Your task to perform on an android device: change notifications settings Image 0: 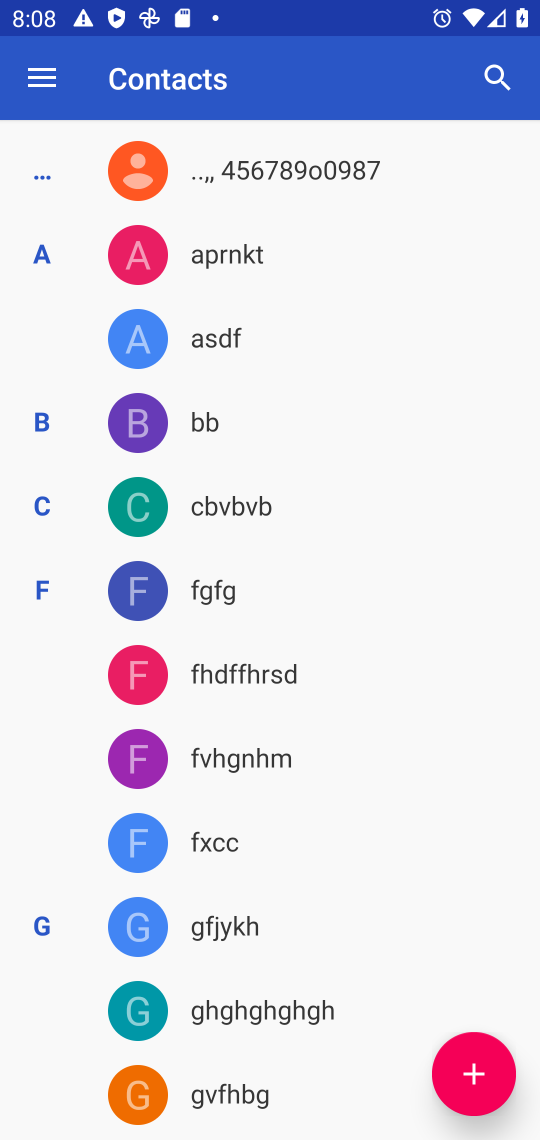
Step 0: press home button
Your task to perform on an android device: change notifications settings Image 1: 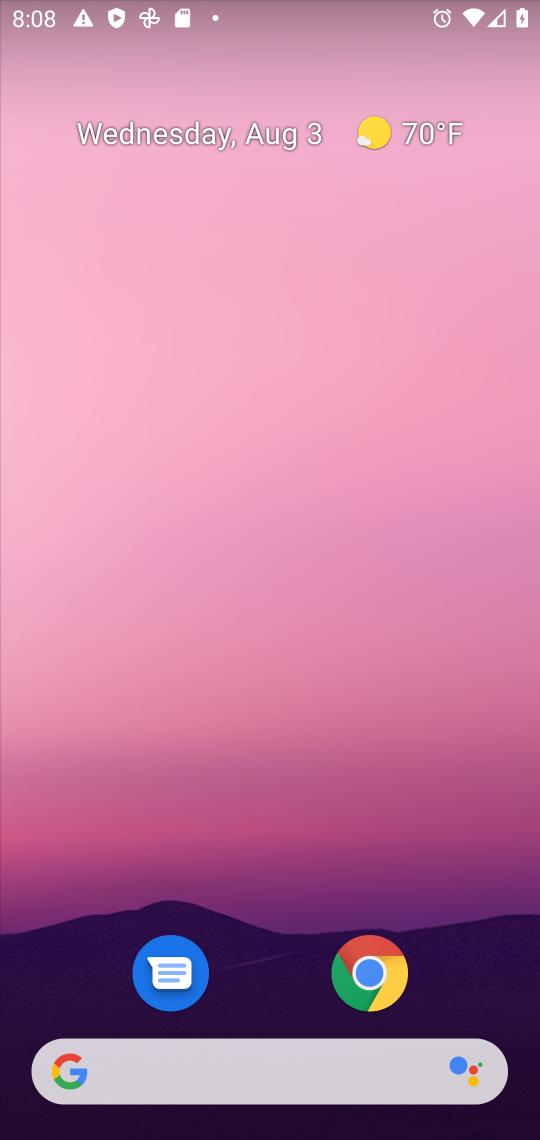
Step 1: drag from (272, 895) to (262, 329)
Your task to perform on an android device: change notifications settings Image 2: 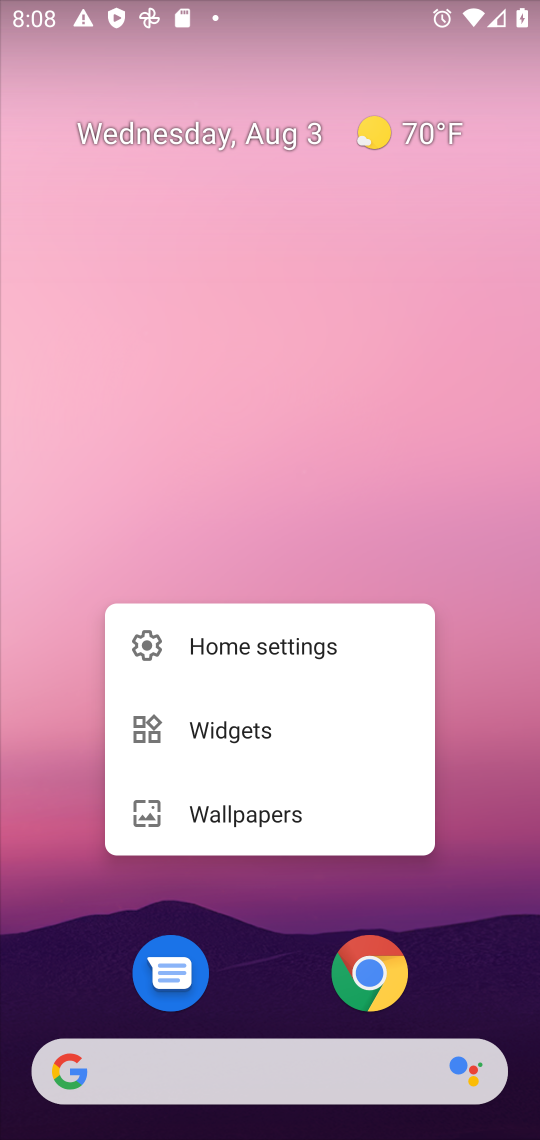
Step 2: click (252, 987)
Your task to perform on an android device: change notifications settings Image 3: 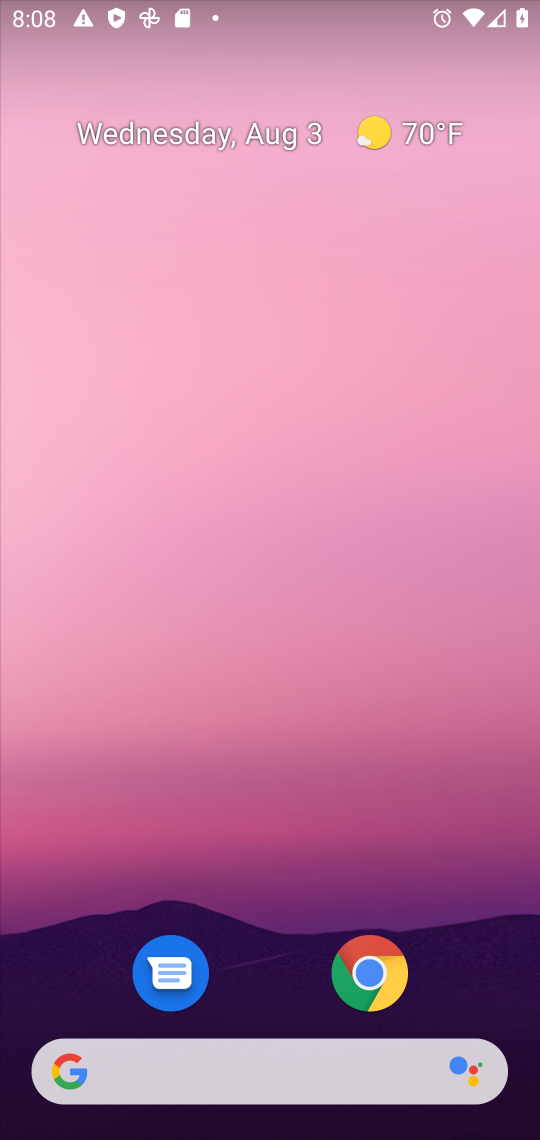
Step 3: drag from (249, 960) to (222, 289)
Your task to perform on an android device: change notifications settings Image 4: 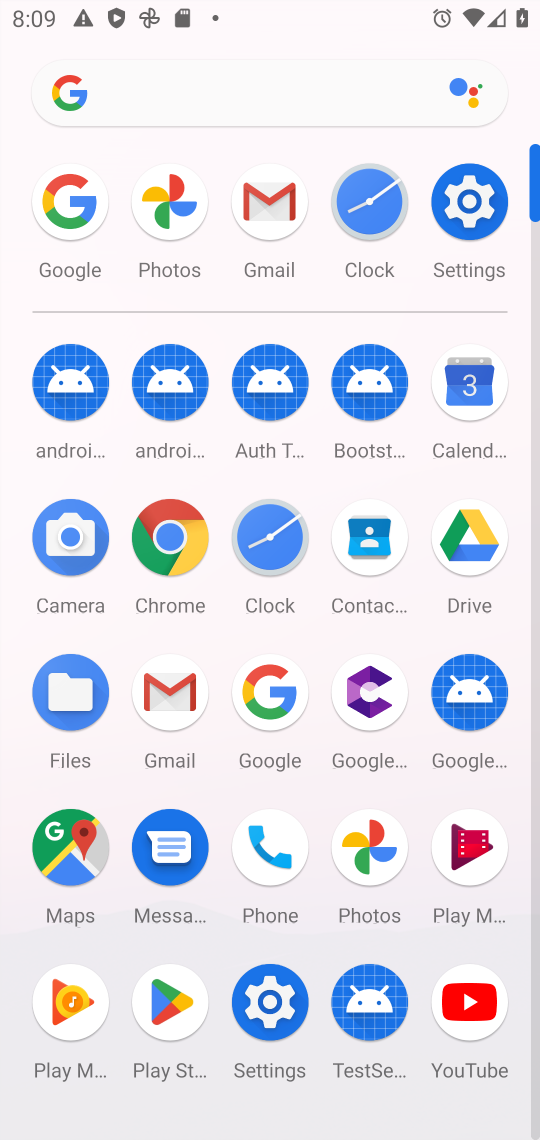
Step 4: click (466, 205)
Your task to perform on an android device: change notifications settings Image 5: 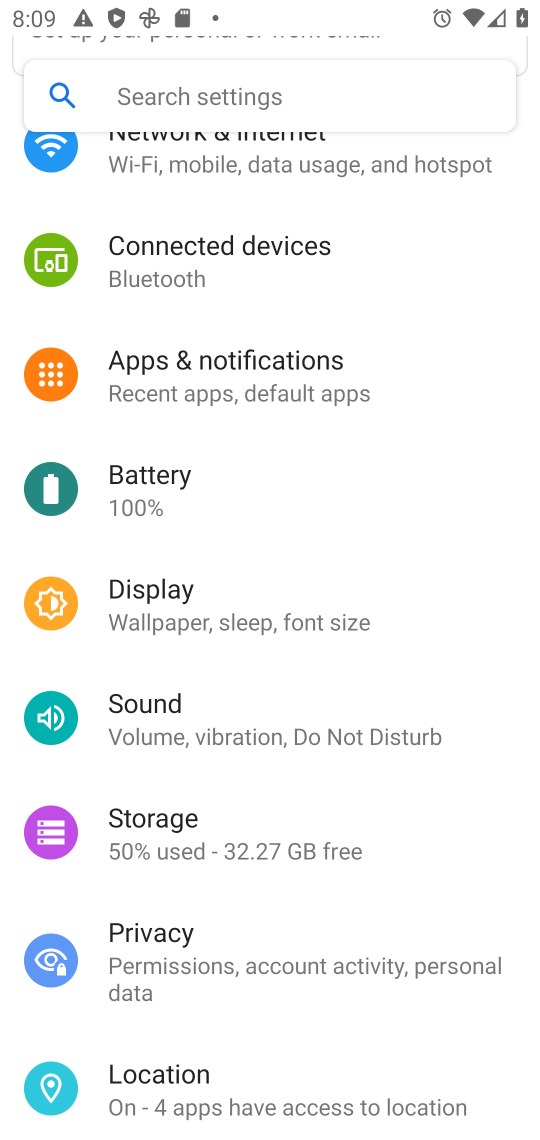
Step 5: click (193, 393)
Your task to perform on an android device: change notifications settings Image 6: 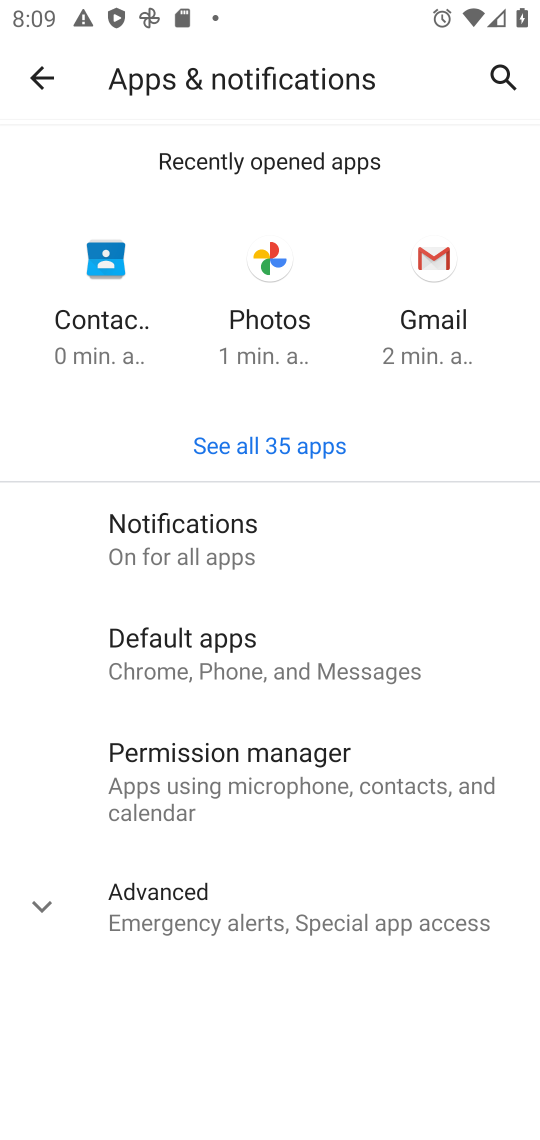
Step 6: click (163, 539)
Your task to perform on an android device: change notifications settings Image 7: 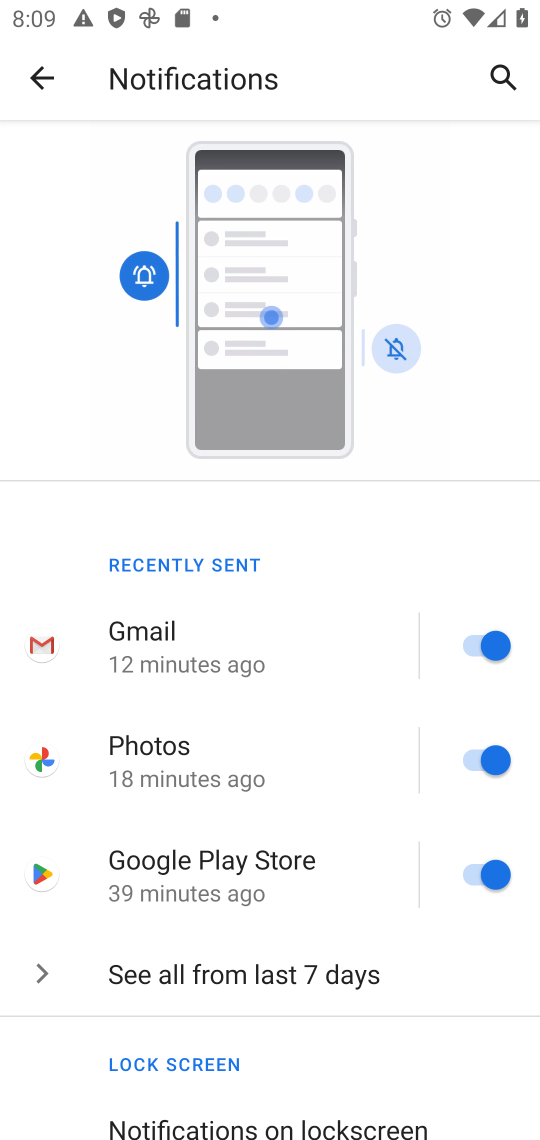
Step 7: drag from (243, 735) to (281, 437)
Your task to perform on an android device: change notifications settings Image 8: 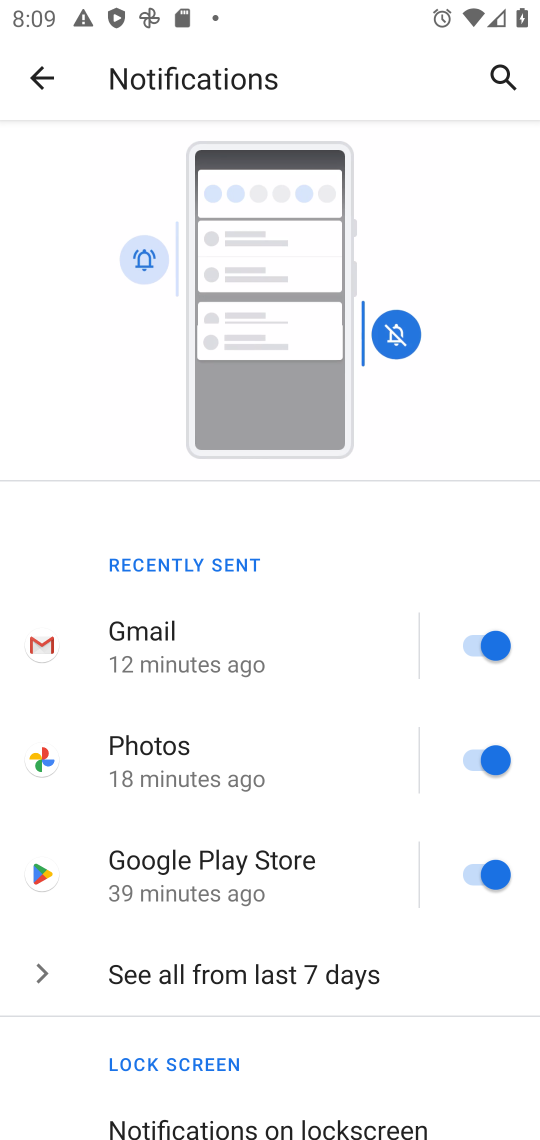
Step 8: drag from (230, 1033) to (239, 376)
Your task to perform on an android device: change notifications settings Image 9: 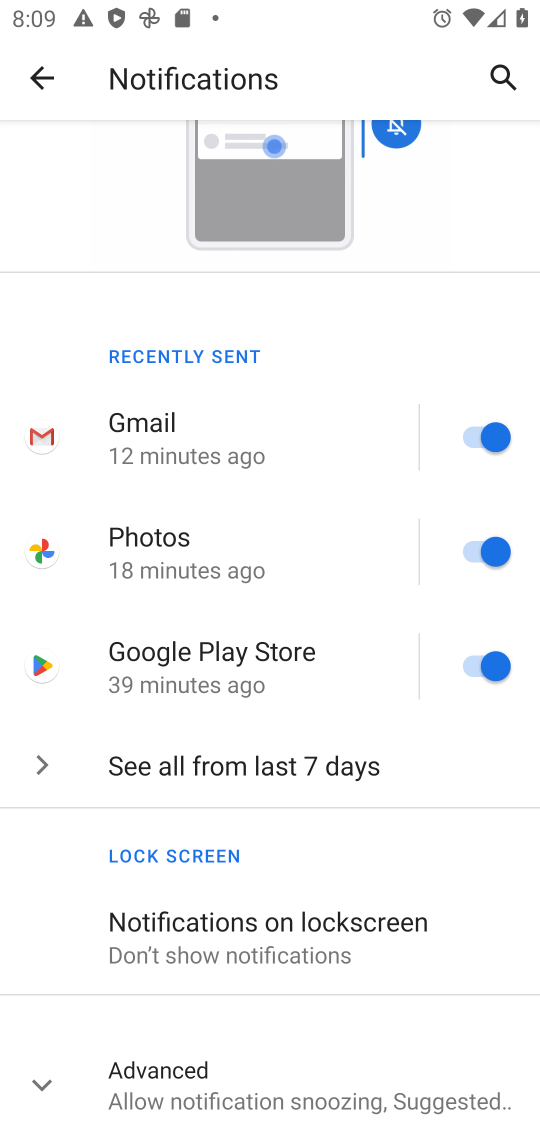
Step 9: click (239, 939)
Your task to perform on an android device: change notifications settings Image 10: 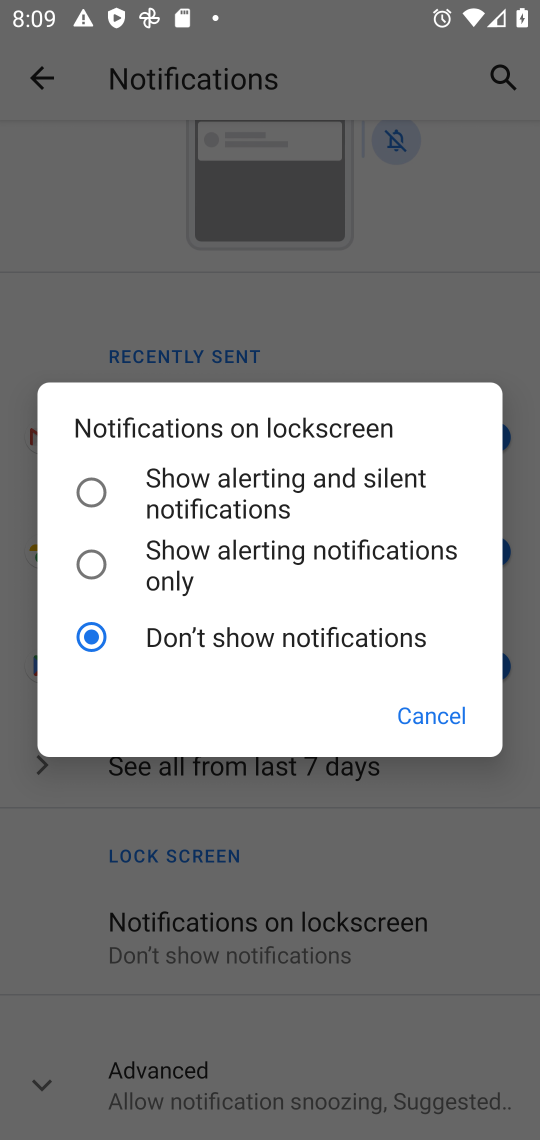
Step 10: click (94, 492)
Your task to perform on an android device: change notifications settings Image 11: 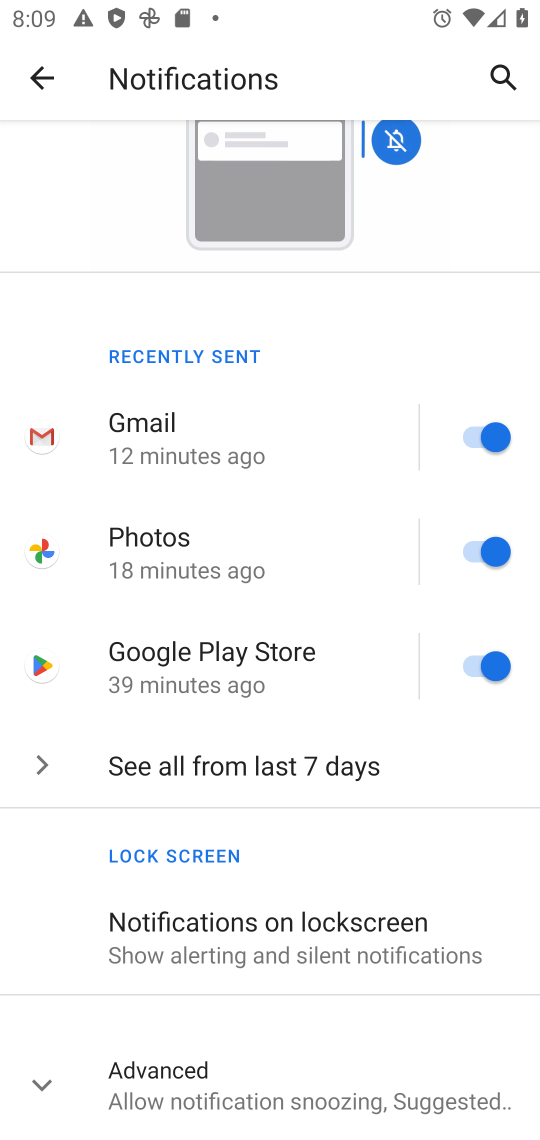
Step 11: task complete